Your task to perform on an android device: Find coffee shops on Maps Image 0: 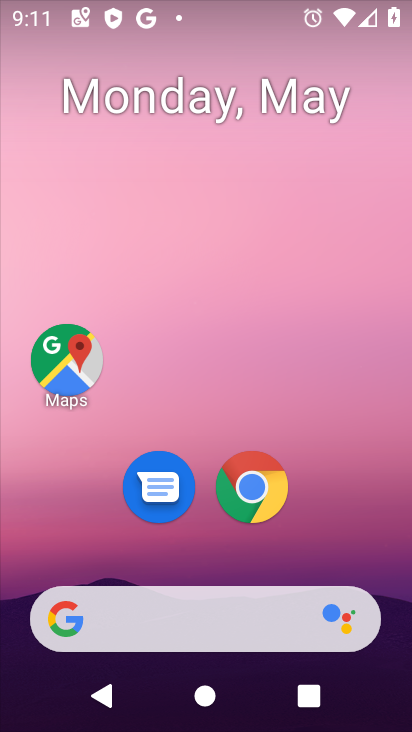
Step 0: click (87, 346)
Your task to perform on an android device: Find coffee shops on Maps Image 1: 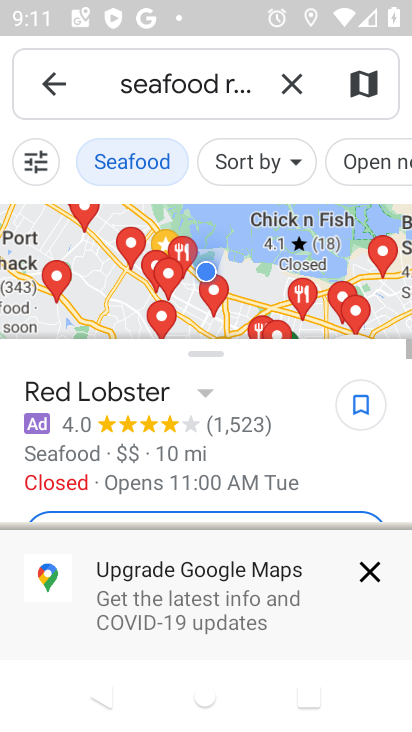
Step 1: click (292, 84)
Your task to perform on an android device: Find coffee shops on Maps Image 2: 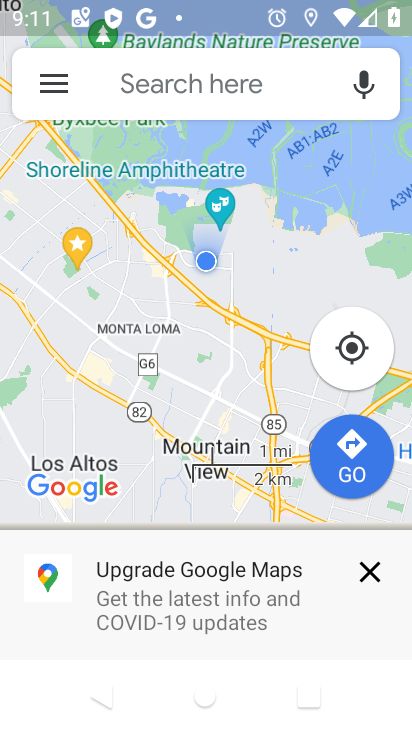
Step 2: click (230, 84)
Your task to perform on an android device: Find coffee shops on Maps Image 3: 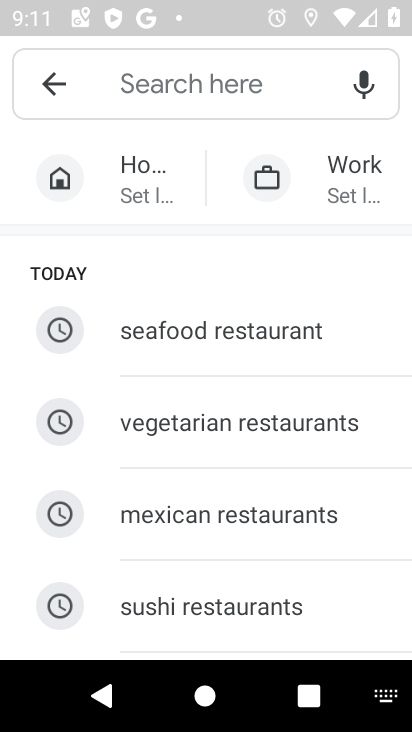
Step 3: type "coffe shop"
Your task to perform on an android device: Find coffee shops on Maps Image 4: 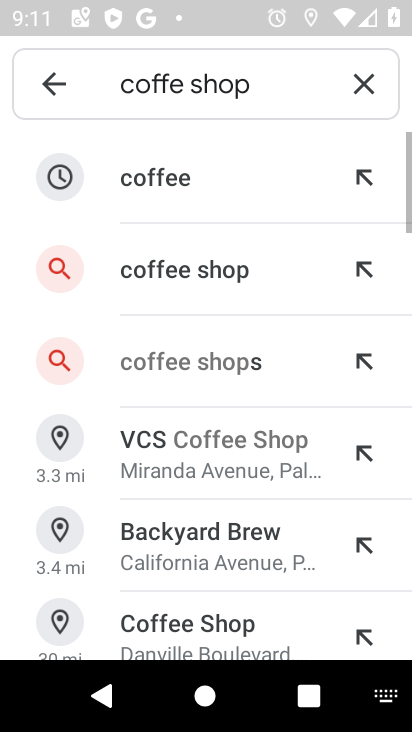
Step 4: click (90, 261)
Your task to perform on an android device: Find coffee shops on Maps Image 5: 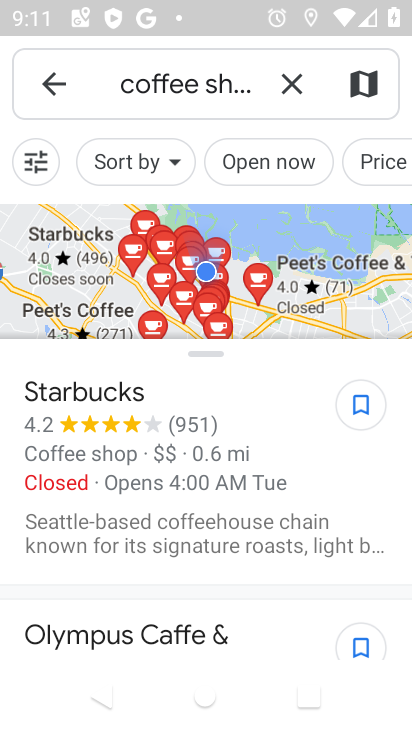
Step 5: task complete